Your task to perform on an android device: stop showing notifications on the lock screen Image 0: 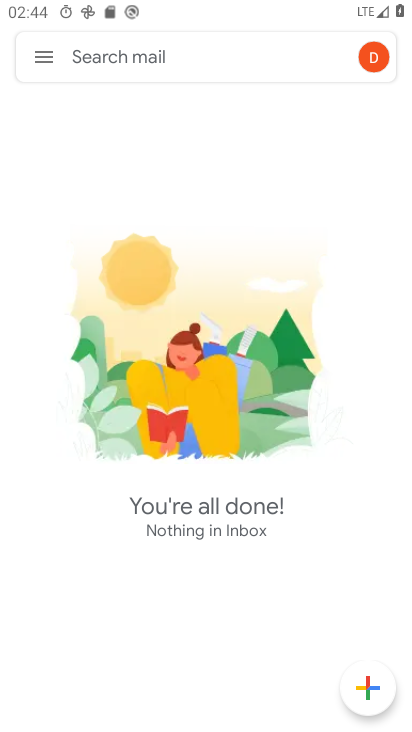
Step 0: press home button
Your task to perform on an android device: stop showing notifications on the lock screen Image 1: 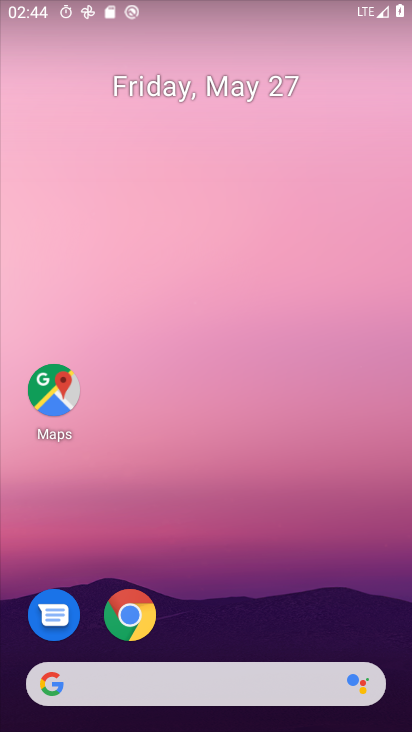
Step 1: drag from (374, 637) to (372, 214)
Your task to perform on an android device: stop showing notifications on the lock screen Image 2: 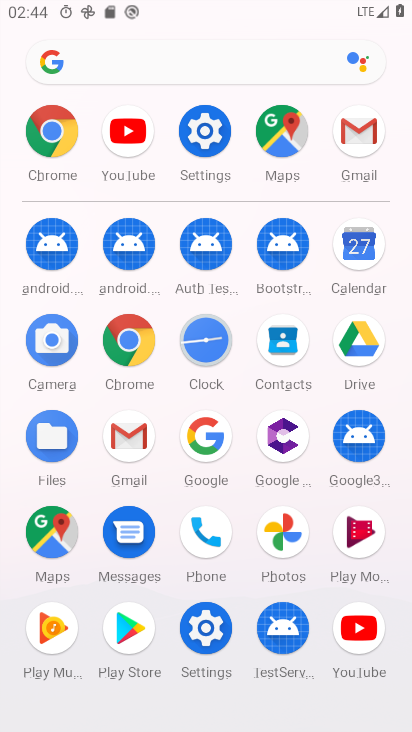
Step 2: click (201, 630)
Your task to perform on an android device: stop showing notifications on the lock screen Image 3: 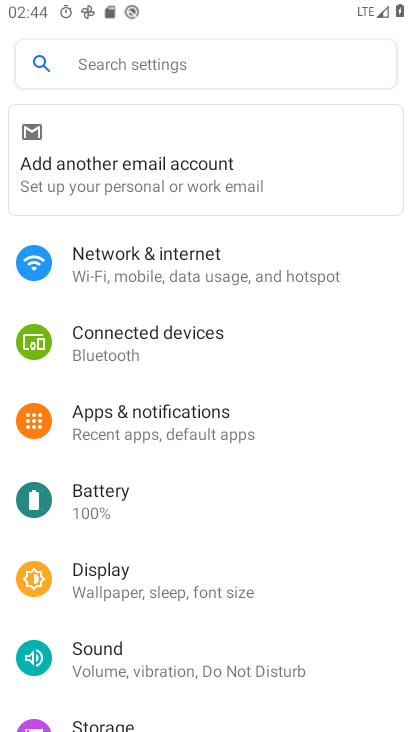
Step 3: drag from (347, 574) to (340, 467)
Your task to perform on an android device: stop showing notifications on the lock screen Image 4: 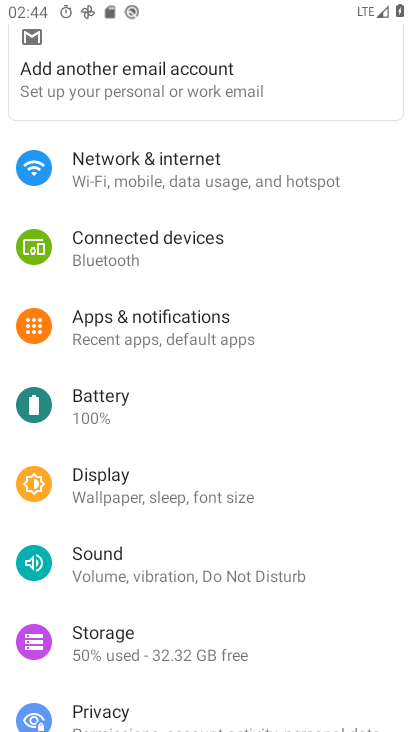
Step 4: drag from (352, 618) to (354, 518)
Your task to perform on an android device: stop showing notifications on the lock screen Image 5: 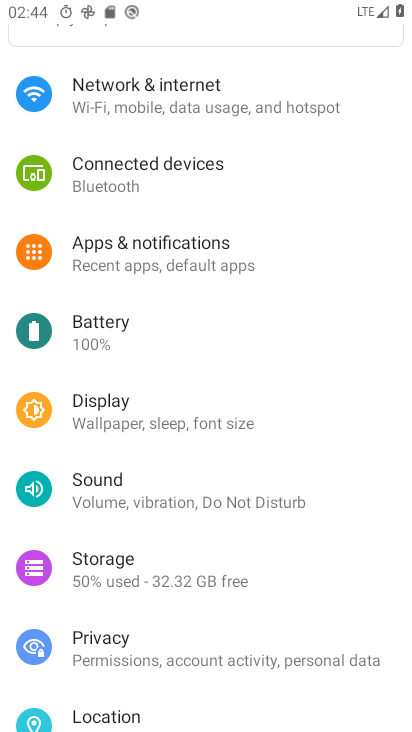
Step 5: drag from (353, 623) to (352, 505)
Your task to perform on an android device: stop showing notifications on the lock screen Image 6: 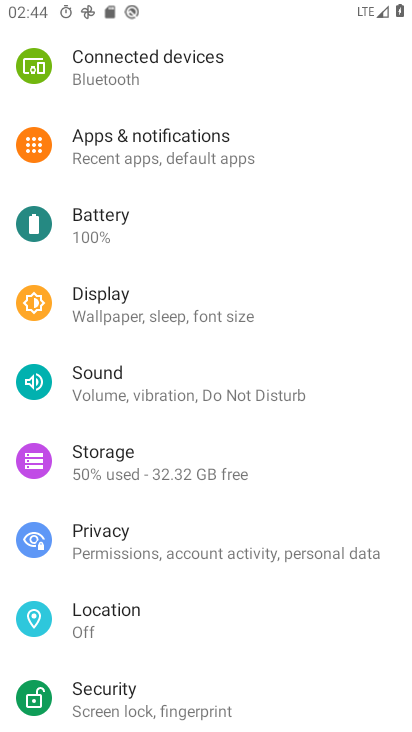
Step 6: drag from (355, 622) to (359, 500)
Your task to perform on an android device: stop showing notifications on the lock screen Image 7: 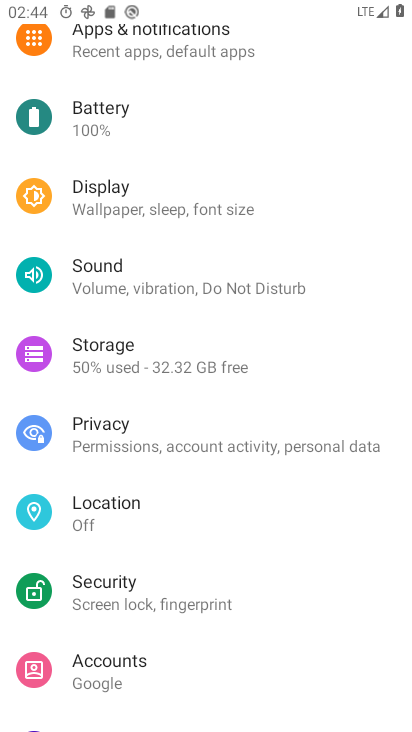
Step 7: drag from (348, 631) to (352, 499)
Your task to perform on an android device: stop showing notifications on the lock screen Image 8: 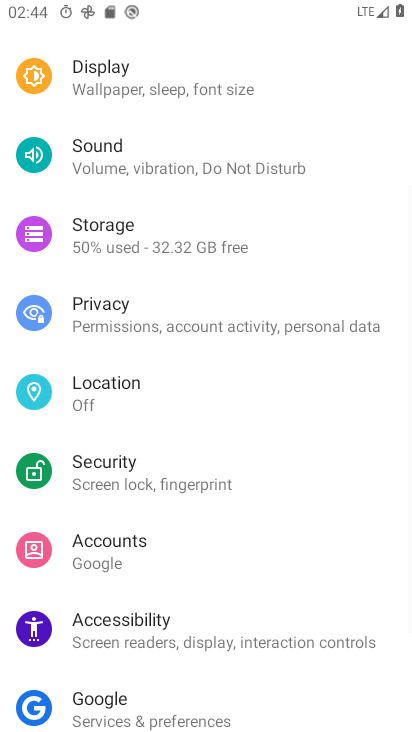
Step 8: drag from (336, 598) to (340, 501)
Your task to perform on an android device: stop showing notifications on the lock screen Image 9: 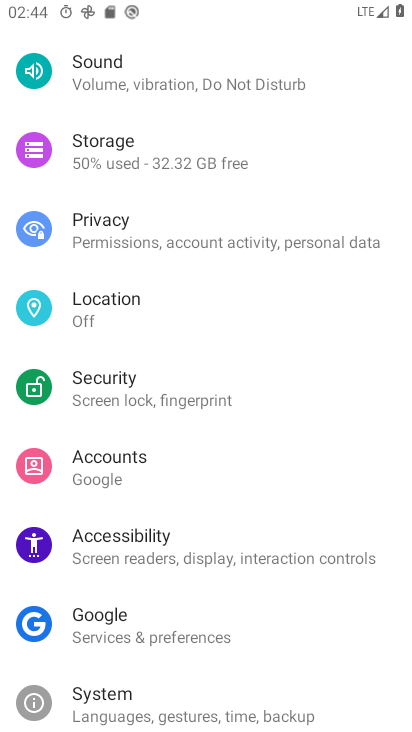
Step 9: drag from (346, 644) to (345, 486)
Your task to perform on an android device: stop showing notifications on the lock screen Image 10: 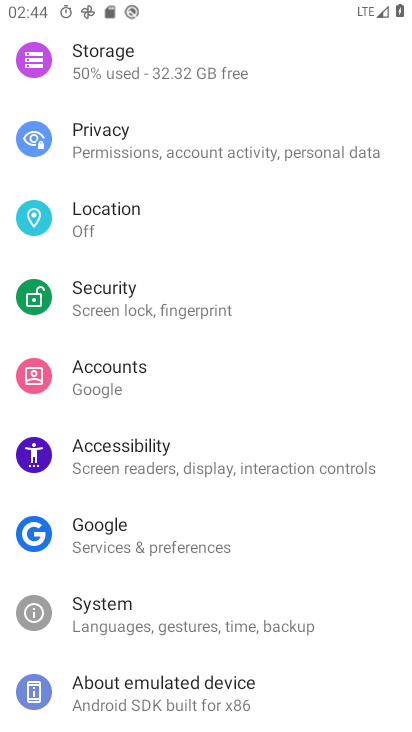
Step 10: drag from (351, 352) to (358, 485)
Your task to perform on an android device: stop showing notifications on the lock screen Image 11: 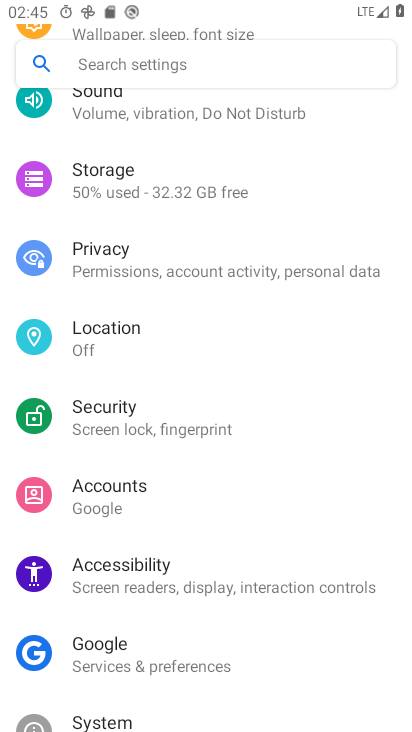
Step 11: drag from (359, 357) to (373, 465)
Your task to perform on an android device: stop showing notifications on the lock screen Image 12: 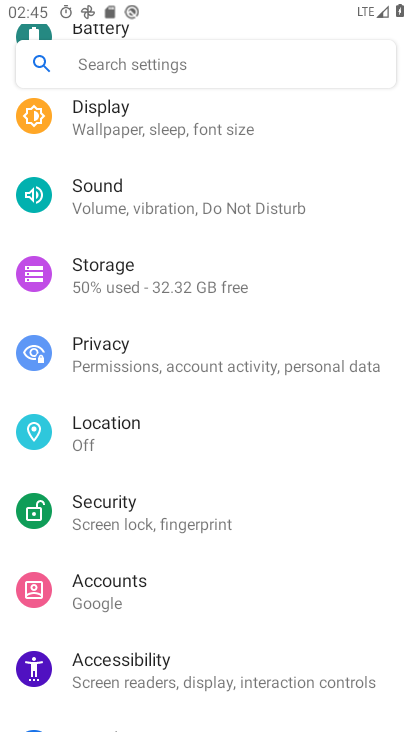
Step 12: drag from (379, 300) to (375, 414)
Your task to perform on an android device: stop showing notifications on the lock screen Image 13: 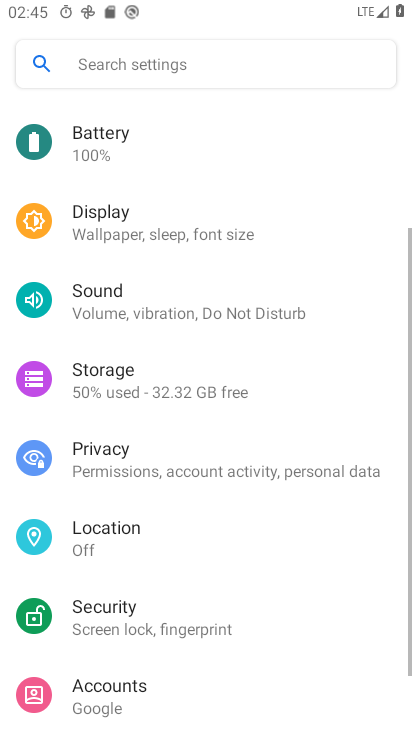
Step 13: drag from (366, 295) to (363, 416)
Your task to perform on an android device: stop showing notifications on the lock screen Image 14: 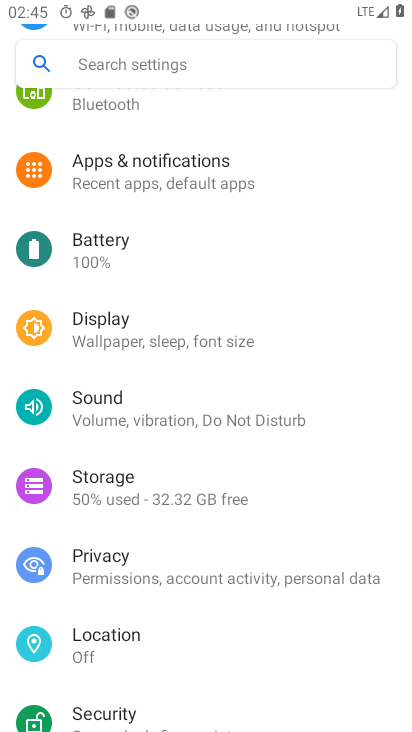
Step 14: drag from (352, 264) to (364, 403)
Your task to perform on an android device: stop showing notifications on the lock screen Image 15: 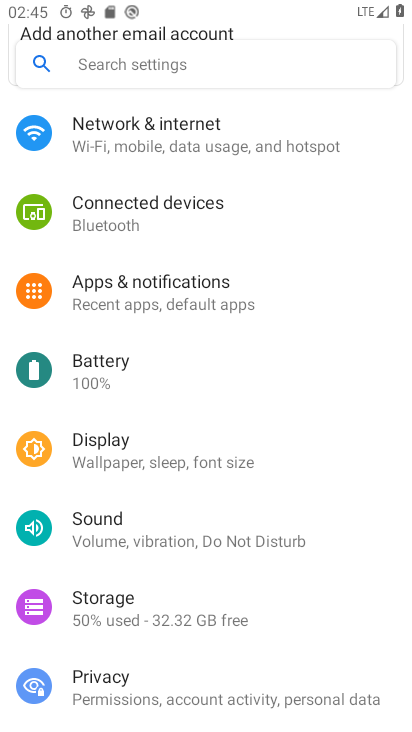
Step 15: click (198, 296)
Your task to perform on an android device: stop showing notifications on the lock screen Image 16: 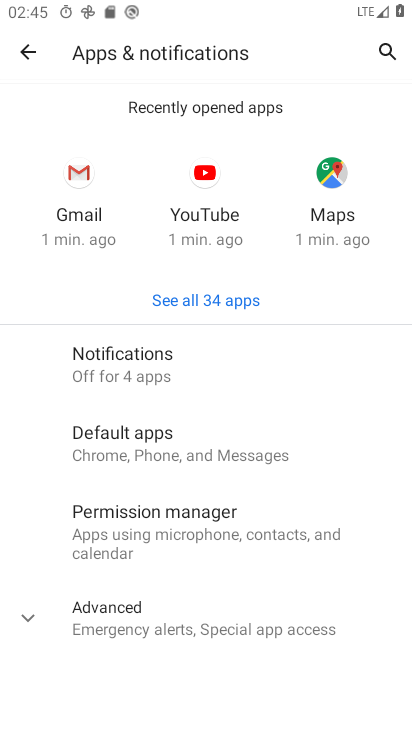
Step 16: click (169, 365)
Your task to perform on an android device: stop showing notifications on the lock screen Image 17: 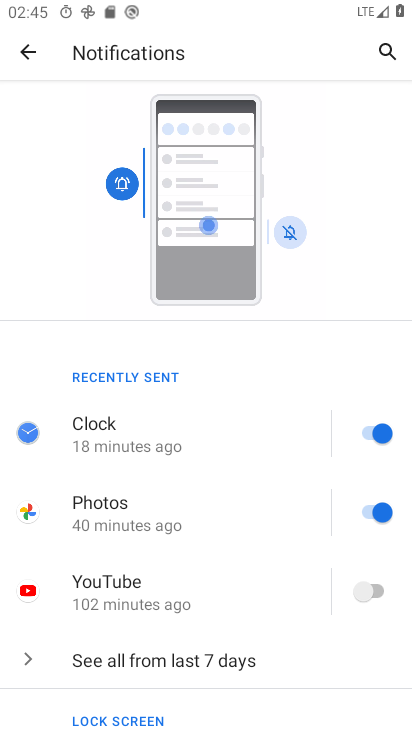
Step 17: drag from (290, 601) to (278, 456)
Your task to perform on an android device: stop showing notifications on the lock screen Image 18: 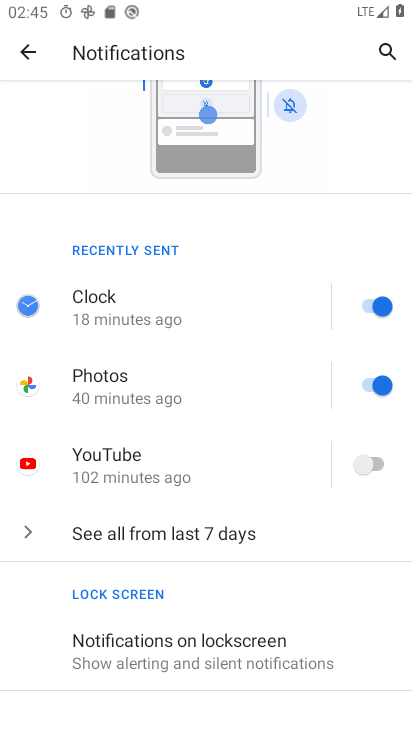
Step 18: drag from (280, 572) to (277, 458)
Your task to perform on an android device: stop showing notifications on the lock screen Image 19: 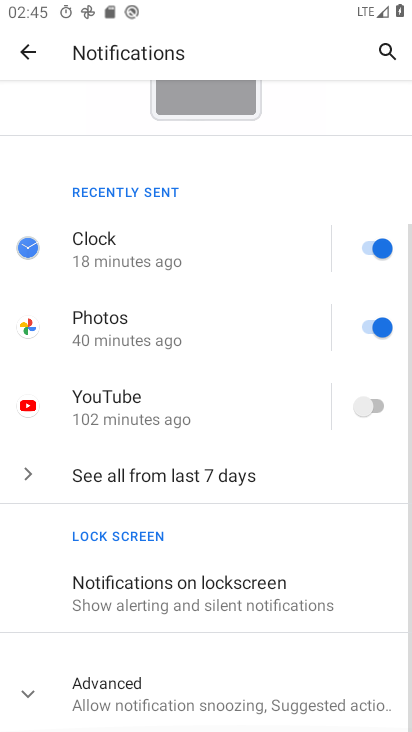
Step 19: click (277, 579)
Your task to perform on an android device: stop showing notifications on the lock screen Image 20: 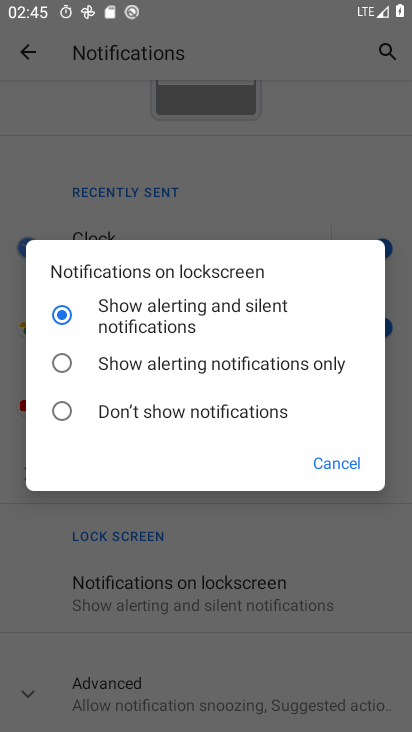
Step 20: click (235, 403)
Your task to perform on an android device: stop showing notifications on the lock screen Image 21: 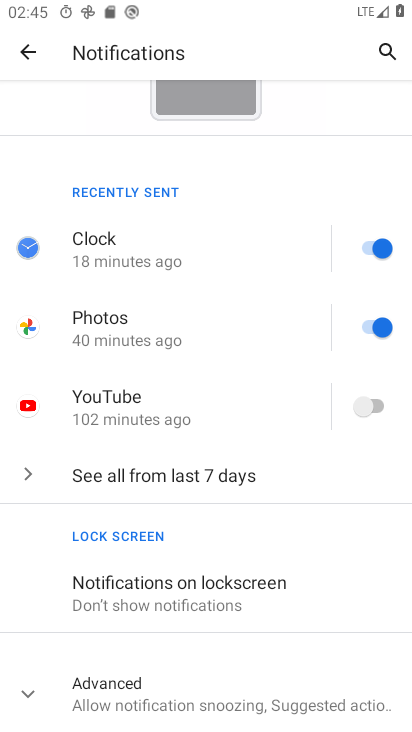
Step 21: task complete